Your task to perform on an android device: Open Google Chrome and click the shortcut for Amazon.com Image 0: 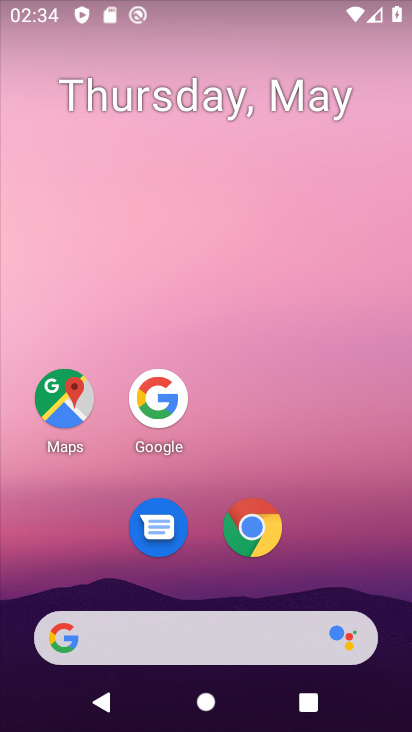
Step 0: drag from (205, 295) to (250, 201)
Your task to perform on an android device: Open Google Chrome and click the shortcut for Amazon.com Image 1: 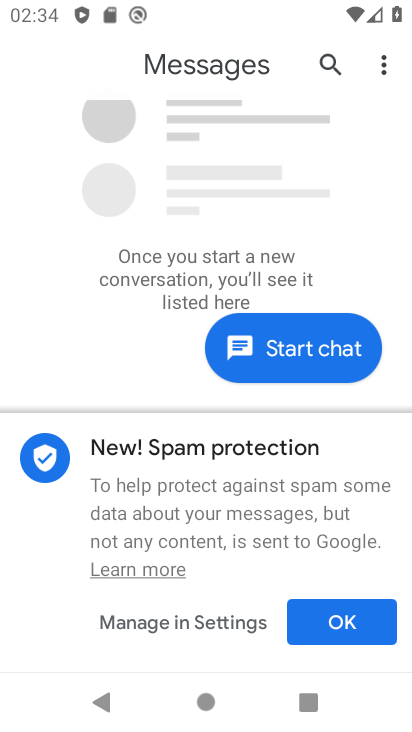
Step 1: press home button
Your task to perform on an android device: Open Google Chrome and click the shortcut for Amazon.com Image 2: 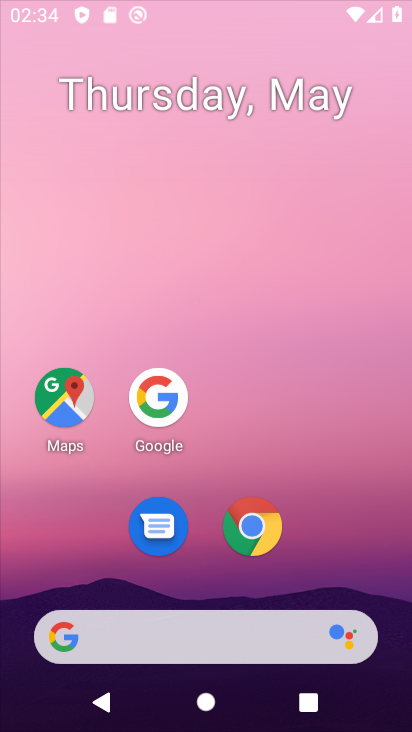
Step 2: drag from (218, 629) to (273, 135)
Your task to perform on an android device: Open Google Chrome and click the shortcut for Amazon.com Image 3: 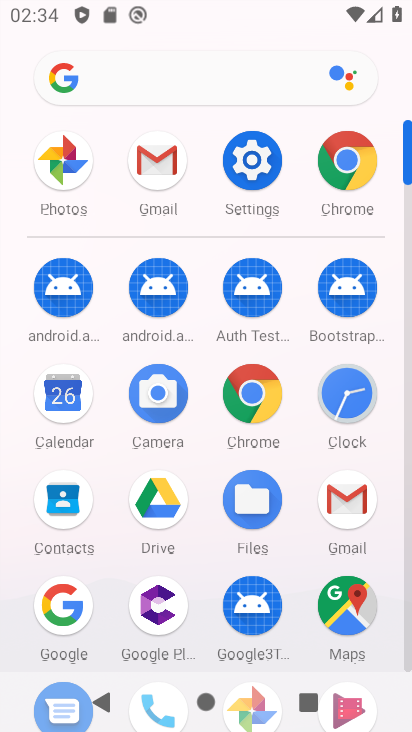
Step 3: click (250, 394)
Your task to perform on an android device: Open Google Chrome and click the shortcut for Amazon.com Image 4: 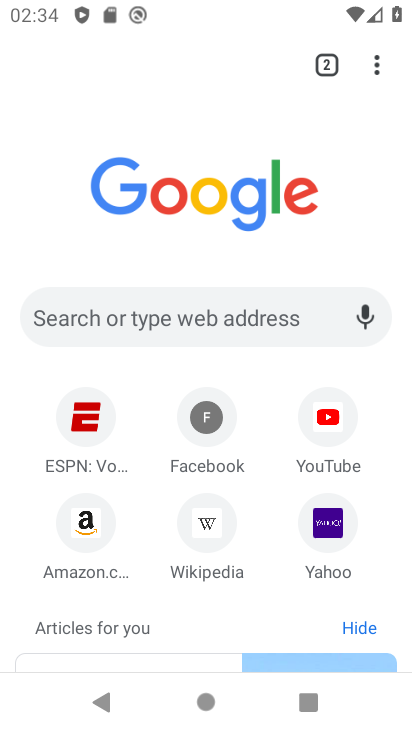
Step 4: drag from (258, 543) to (259, 193)
Your task to perform on an android device: Open Google Chrome and click the shortcut for Amazon.com Image 5: 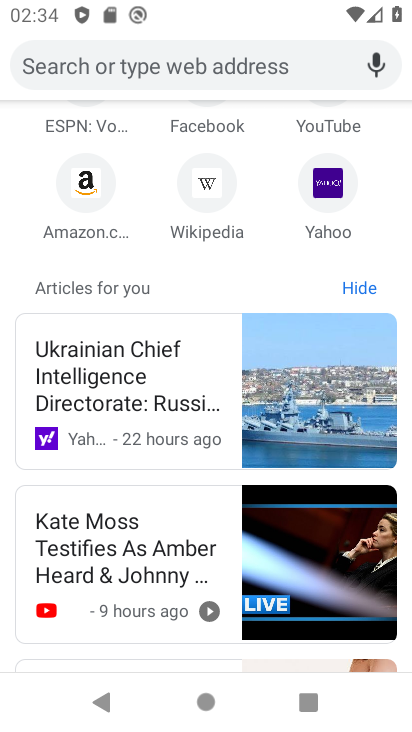
Step 5: drag from (269, 176) to (311, 659)
Your task to perform on an android device: Open Google Chrome and click the shortcut for Amazon.com Image 6: 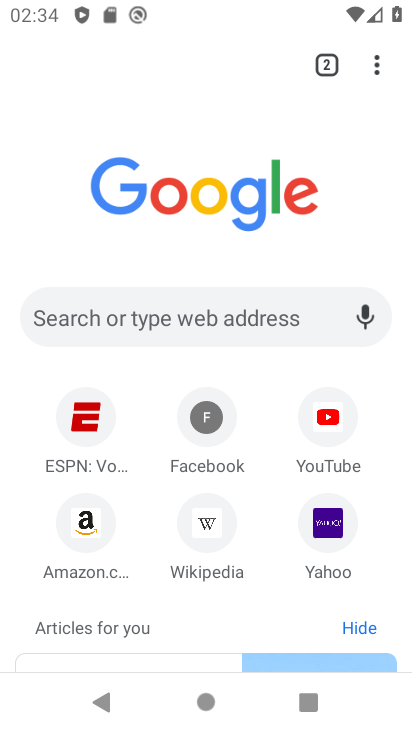
Step 6: click (83, 541)
Your task to perform on an android device: Open Google Chrome and click the shortcut for Amazon.com Image 7: 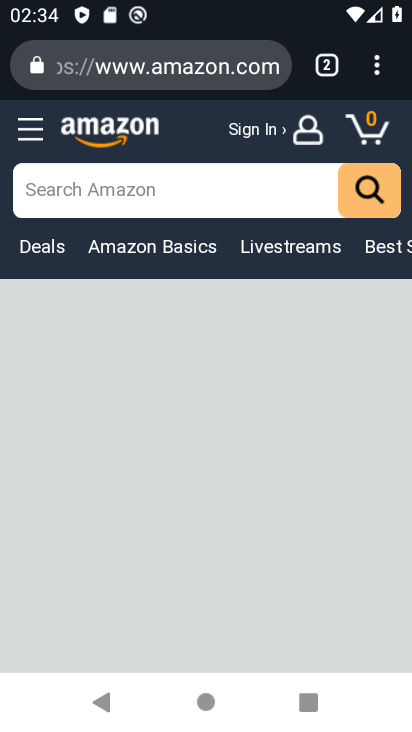
Step 7: task complete